Your task to perform on an android device: toggle priority inbox in the gmail app Image 0: 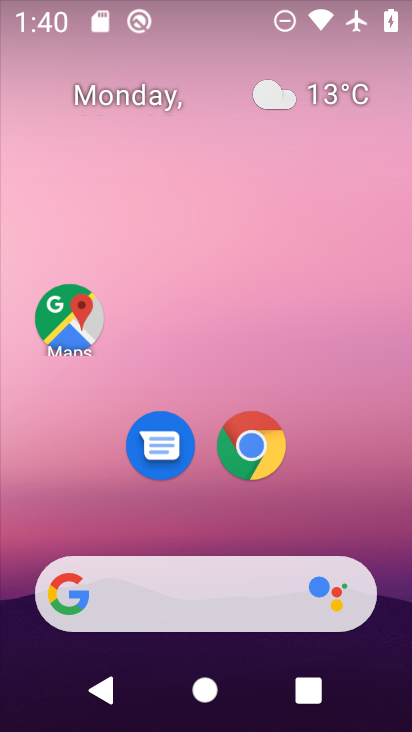
Step 0: drag from (384, 631) to (274, 20)
Your task to perform on an android device: toggle priority inbox in the gmail app Image 1: 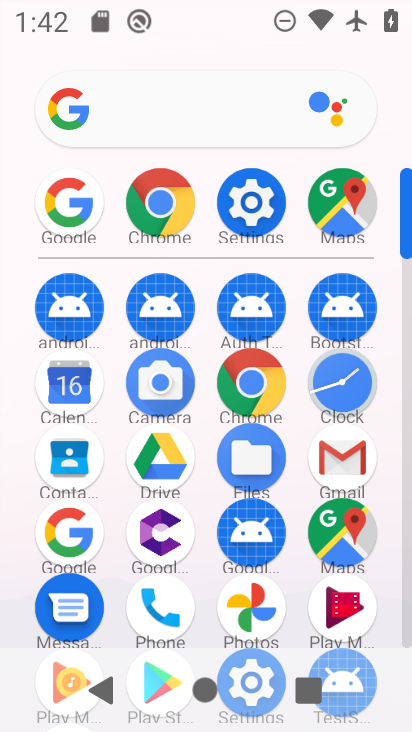
Step 1: click (350, 450)
Your task to perform on an android device: toggle priority inbox in the gmail app Image 2: 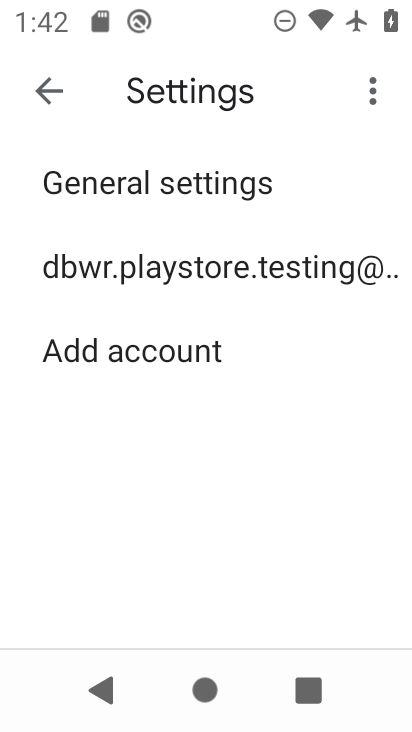
Step 2: click (143, 270)
Your task to perform on an android device: toggle priority inbox in the gmail app Image 3: 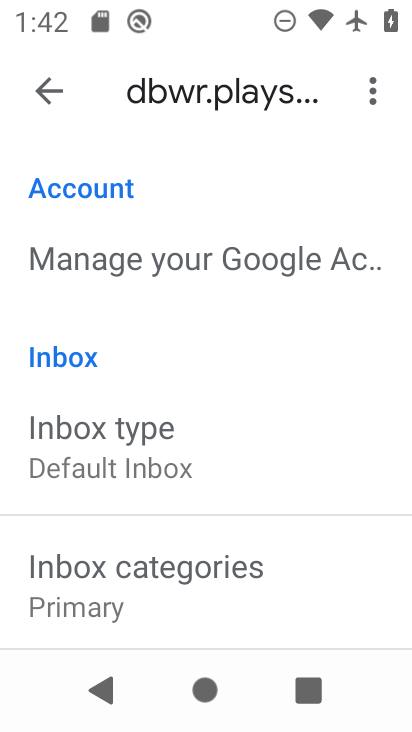
Step 3: drag from (147, 598) to (238, 266)
Your task to perform on an android device: toggle priority inbox in the gmail app Image 4: 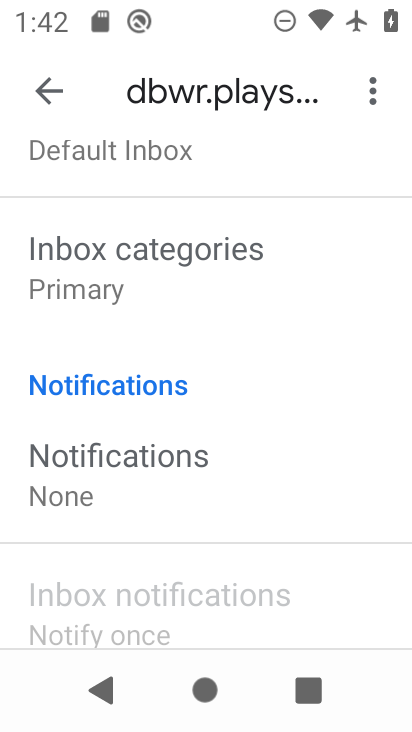
Step 4: drag from (186, 221) to (209, 464)
Your task to perform on an android device: toggle priority inbox in the gmail app Image 5: 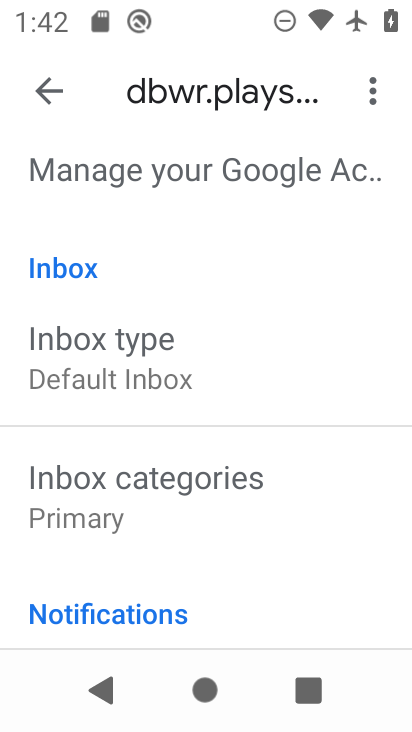
Step 5: click (159, 342)
Your task to perform on an android device: toggle priority inbox in the gmail app Image 6: 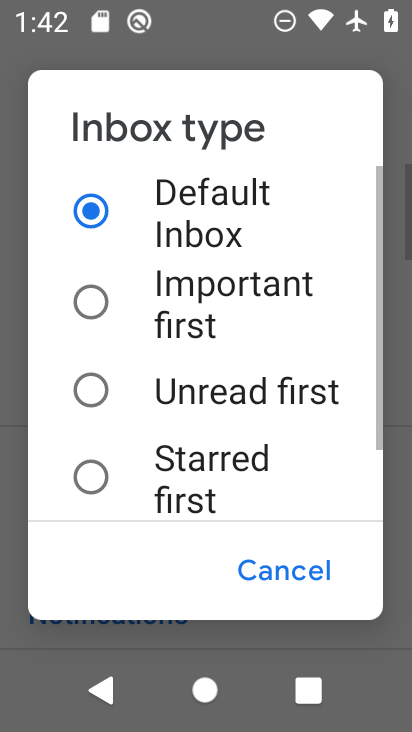
Step 6: click (172, 397)
Your task to perform on an android device: toggle priority inbox in the gmail app Image 7: 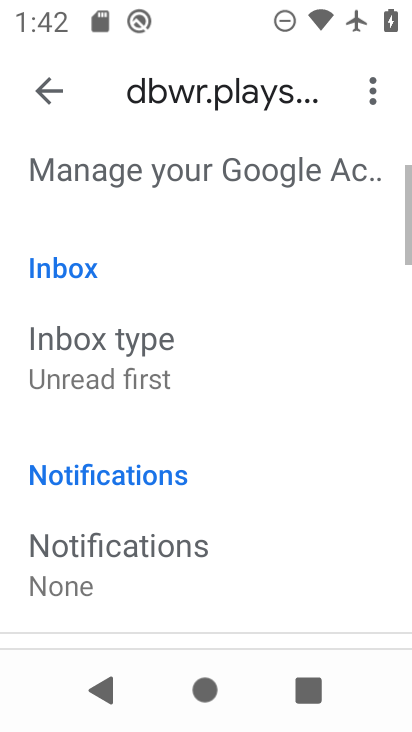
Step 7: task complete